Your task to perform on an android device: toggle notifications settings in the gmail app Image 0: 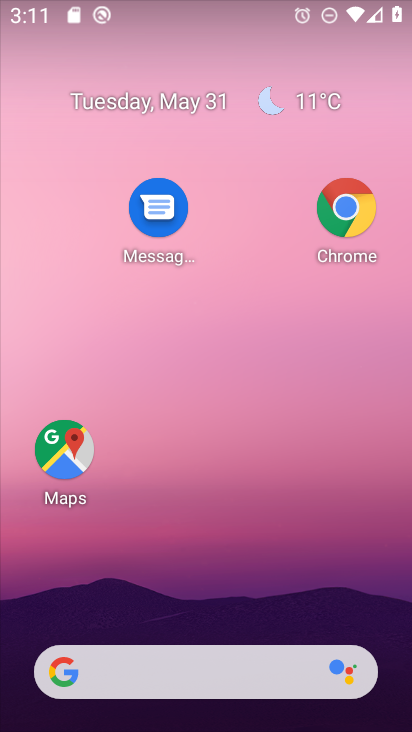
Step 0: drag from (199, 565) to (121, 29)
Your task to perform on an android device: toggle notifications settings in the gmail app Image 1: 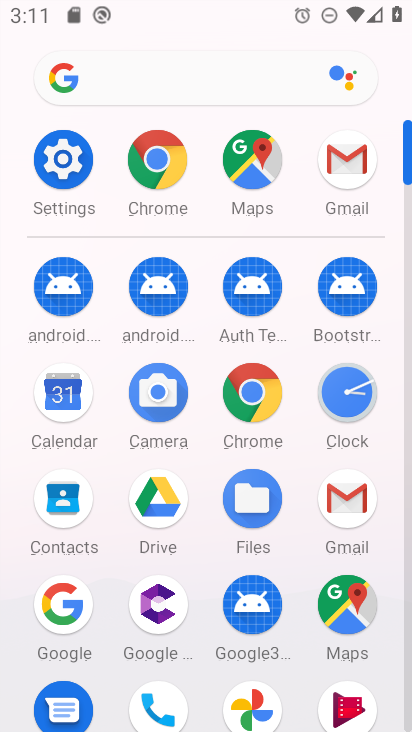
Step 1: click (346, 505)
Your task to perform on an android device: toggle notifications settings in the gmail app Image 2: 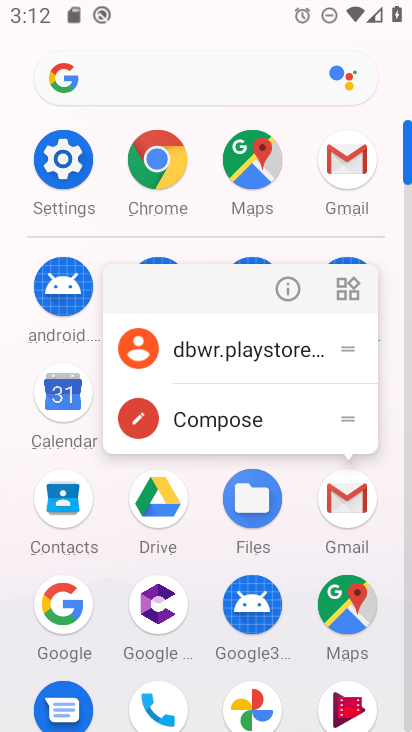
Step 2: click (290, 284)
Your task to perform on an android device: toggle notifications settings in the gmail app Image 3: 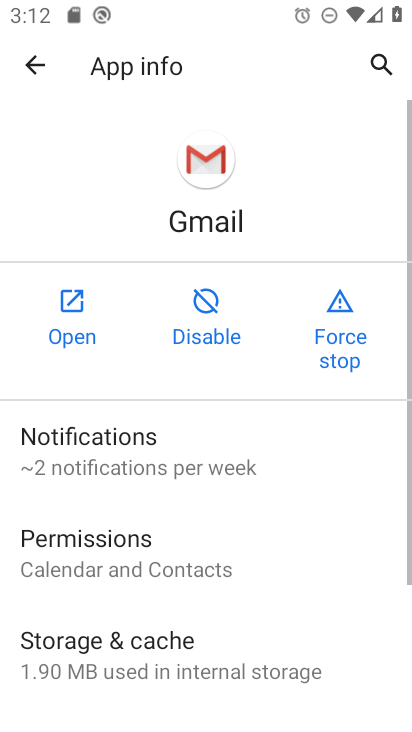
Step 3: click (74, 328)
Your task to perform on an android device: toggle notifications settings in the gmail app Image 4: 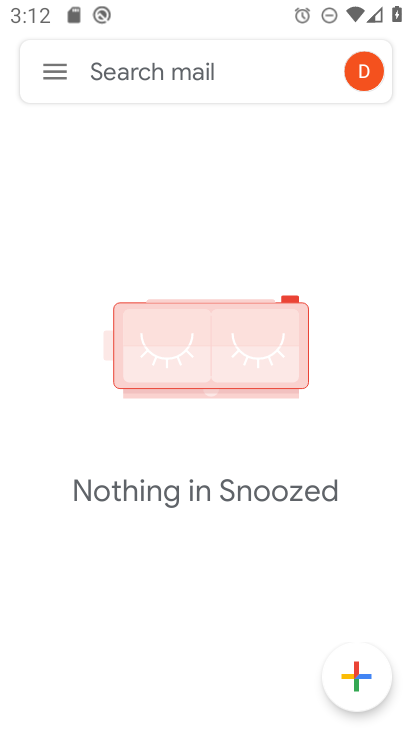
Step 4: click (58, 53)
Your task to perform on an android device: toggle notifications settings in the gmail app Image 5: 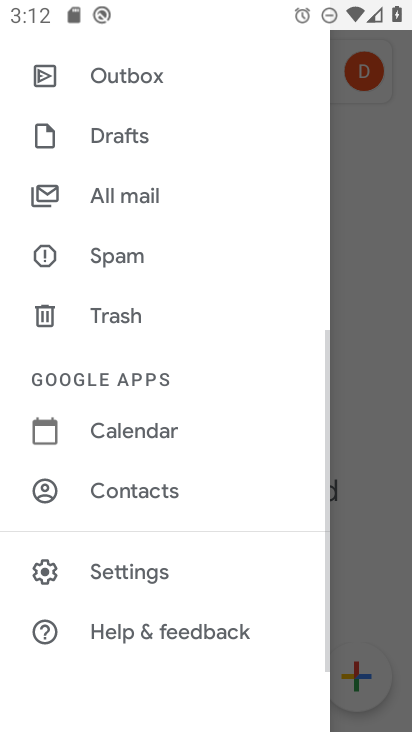
Step 5: click (115, 572)
Your task to perform on an android device: toggle notifications settings in the gmail app Image 6: 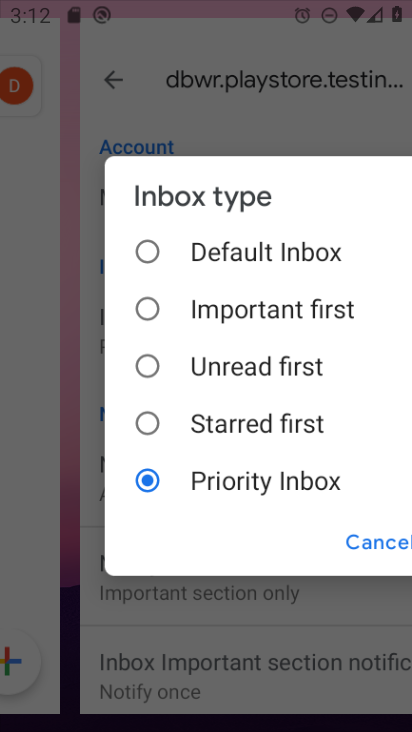
Step 6: drag from (90, 526) to (143, 65)
Your task to perform on an android device: toggle notifications settings in the gmail app Image 7: 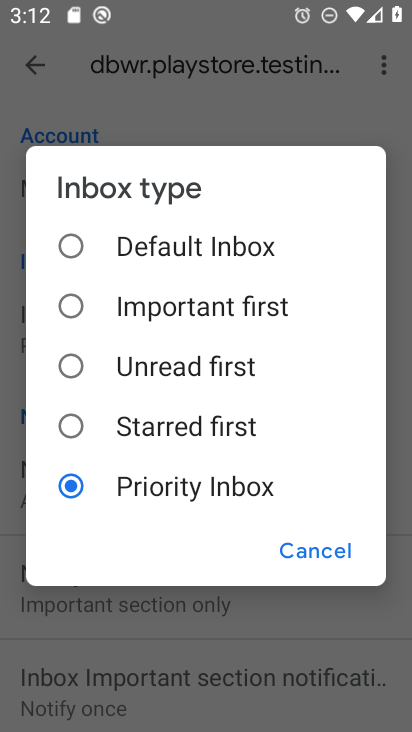
Step 7: click (297, 529)
Your task to perform on an android device: toggle notifications settings in the gmail app Image 8: 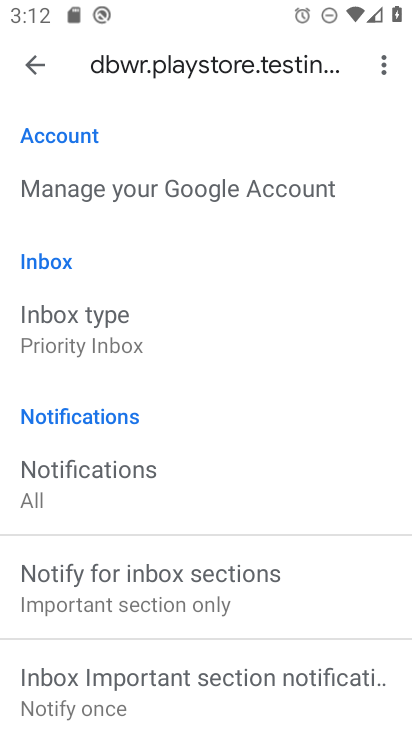
Step 8: drag from (137, 369) to (142, 120)
Your task to perform on an android device: toggle notifications settings in the gmail app Image 9: 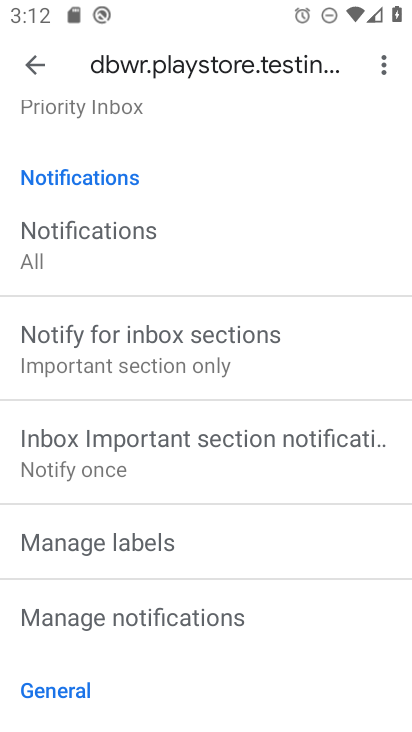
Step 9: click (171, 599)
Your task to perform on an android device: toggle notifications settings in the gmail app Image 10: 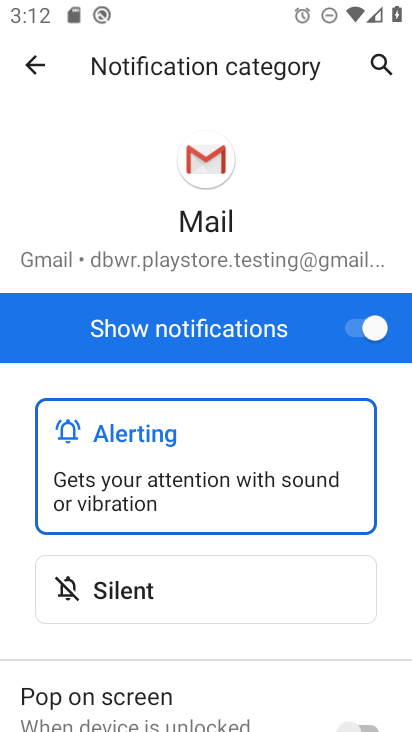
Step 10: click (347, 328)
Your task to perform on an android device: toggle notifications settings in the gmail app Image 11: 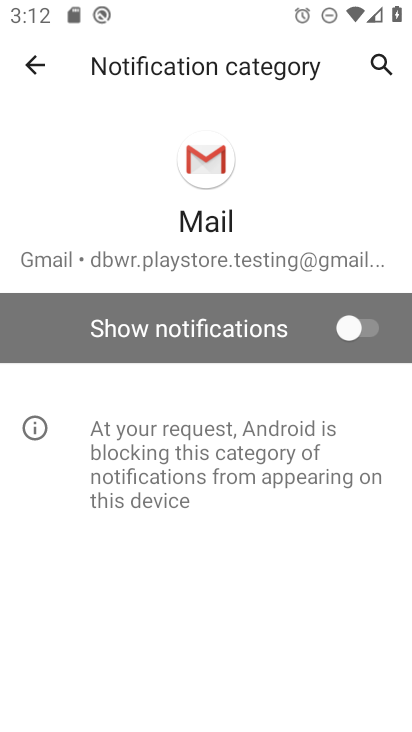
Step 11: task complete